Your task to perform on an android device: check android version Image 0: 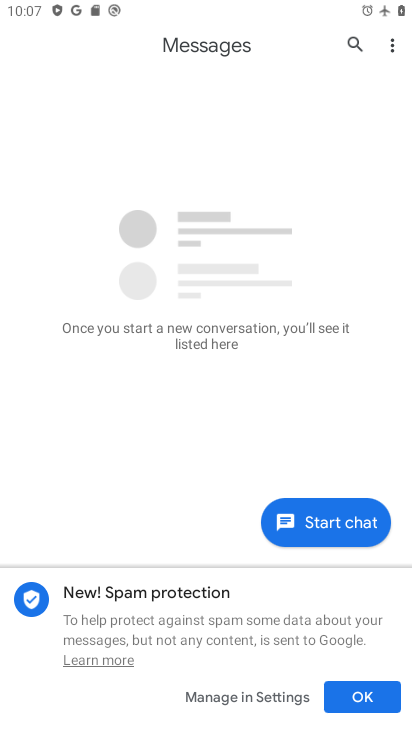
Step 0: press home button
Your task to perform on an android device: check android version Image 1: 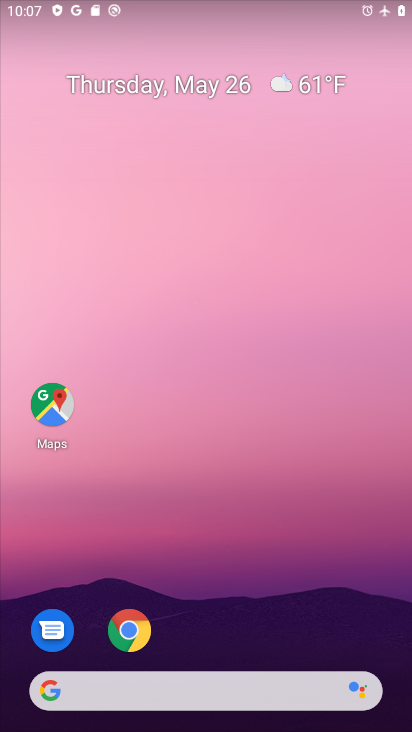
Step 1: drag from (230, 639) to (262, 96)
Your task to perform on an android device: check android version Image 2: 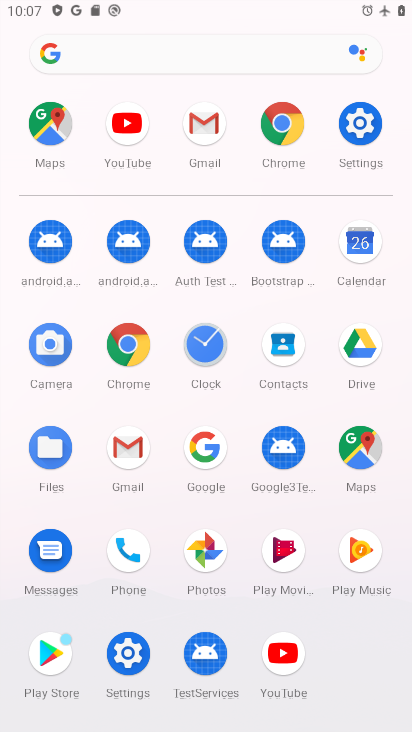
Step 2: click (347, 136)
Your task to perform on an android device: check android version Image 3: 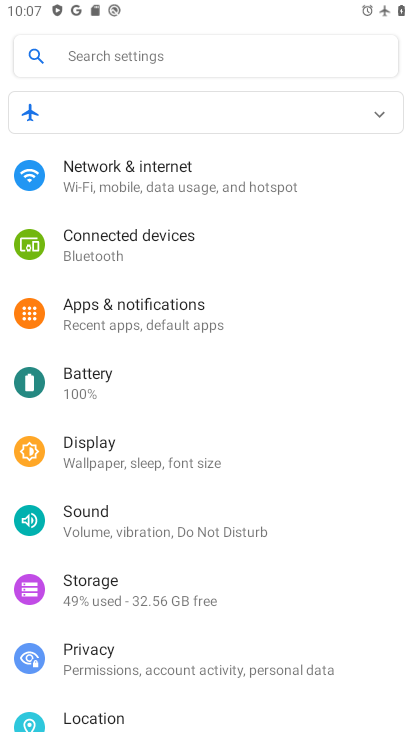
Step 3: drag from (163, 598) to (137, 119)
Your task to perform on an android device: check android version Image 4: 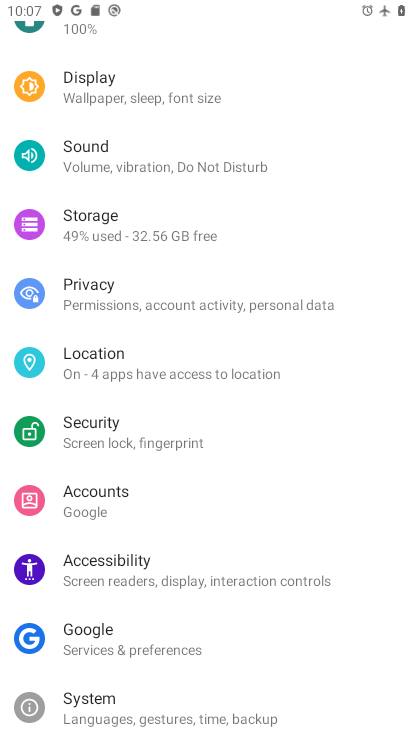
Step 4: drag from (157, 637) to (138, 242)
Your task to perform on an android device: check android version Image 5: 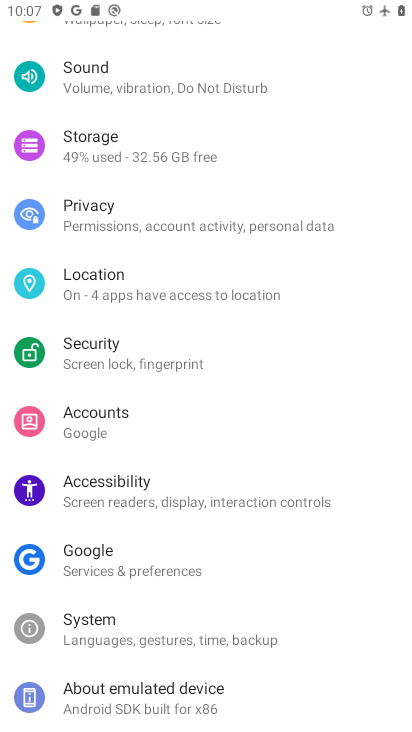
Step 5: click (146, 694)
Your task to perform on an android device: check android version Image 6: 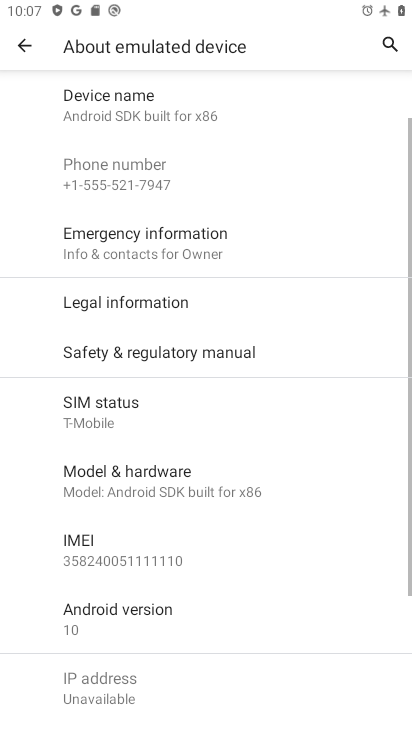
Step 6: click (77, 588)
Your task to perform on an android device: check android version Image 7: 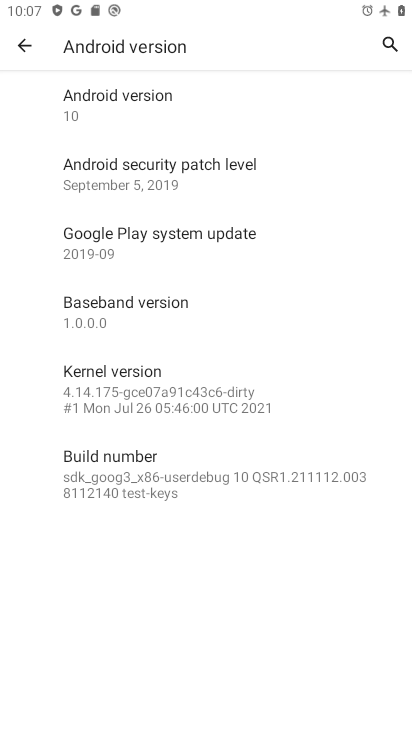
Step 7: task complete